Your task to perform on an android device: turn on priority inbox in the gmail app Image 0: 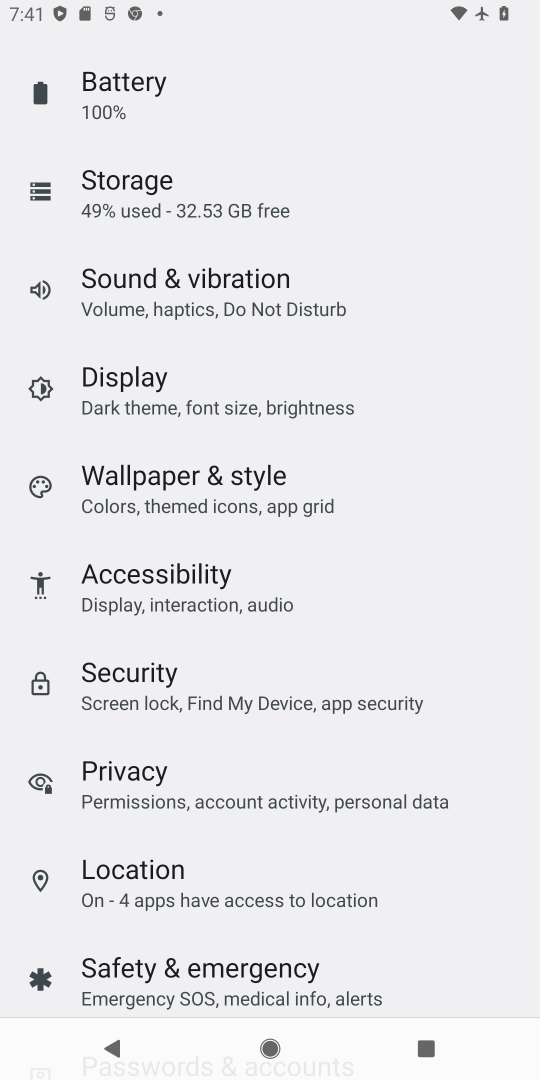
Step 0: press home button
Your task to perform on an android device: turn on priority inbox in the gmail app Image 1: 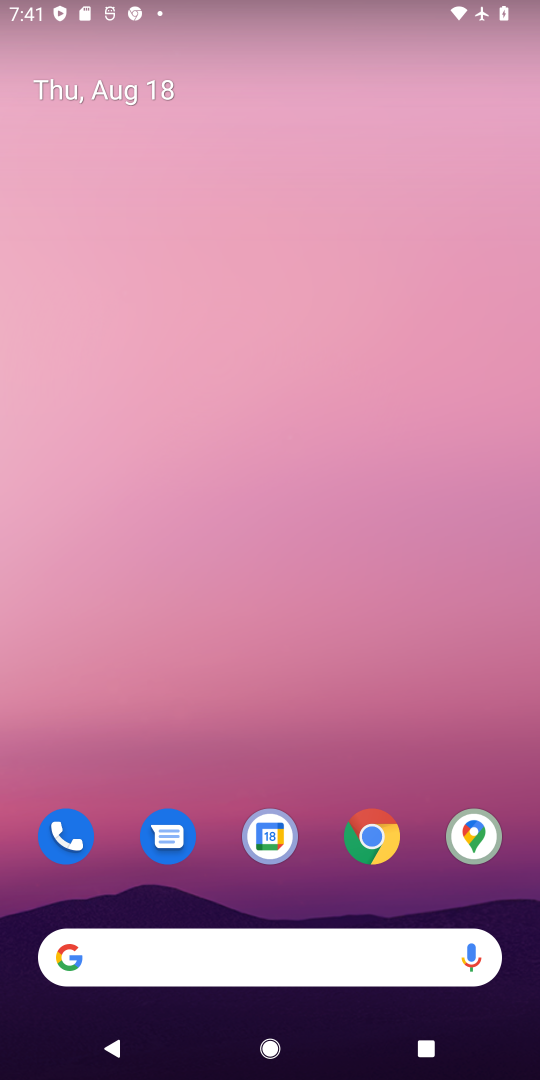
Step 1: drag from (259, 762) to (212, 166)
Your task to perform on an android device: turn on priority inbox in the gmail app Image 2: 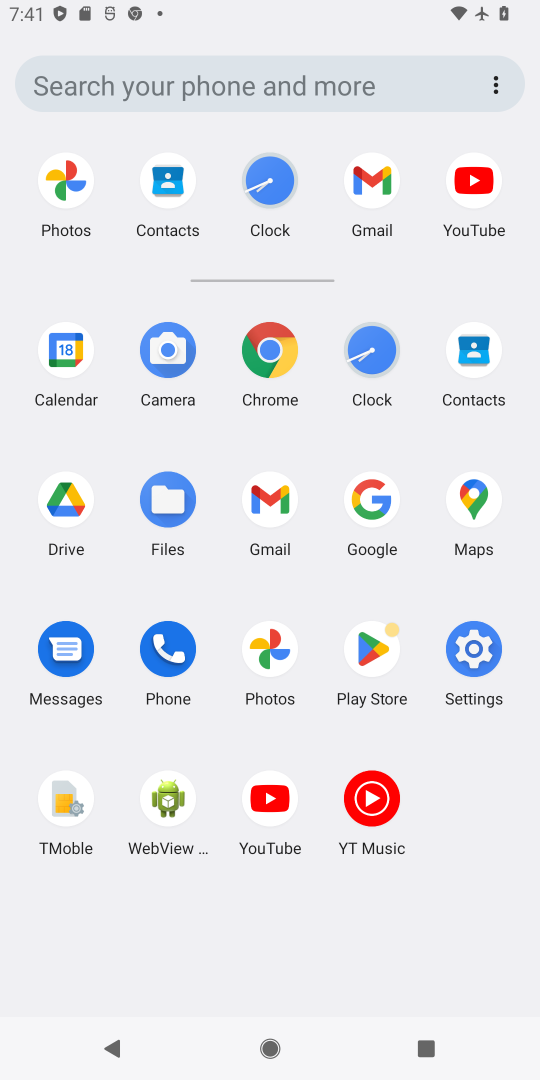
Step 2: click (278, 498)
Your task to perform on an android device: turn on priority inbox in the gmail app Image 3: 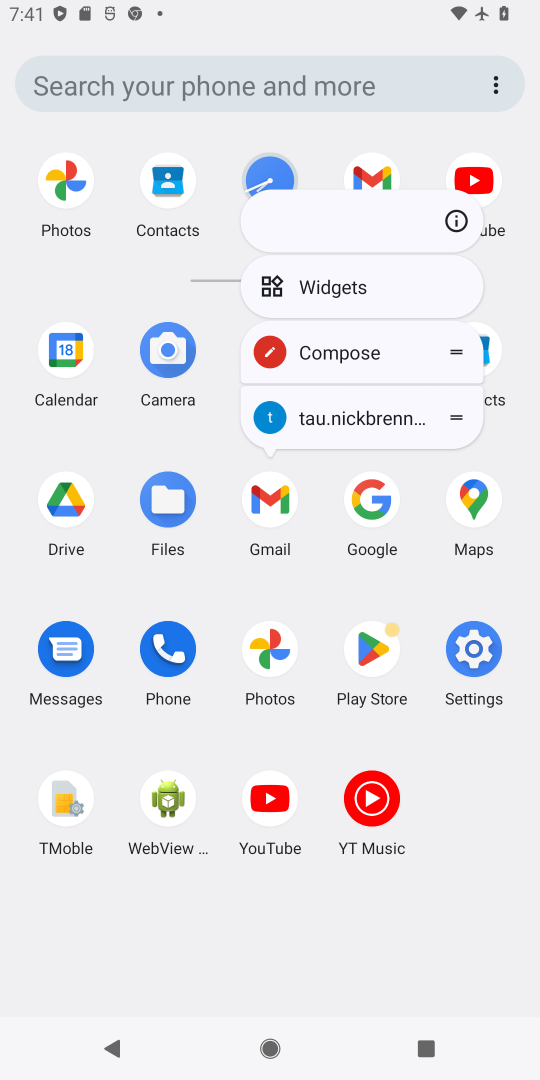
Step 3: click (292, 499)
Your task to perform on an android device: turn on priority inbox in the gmail app Image 4: 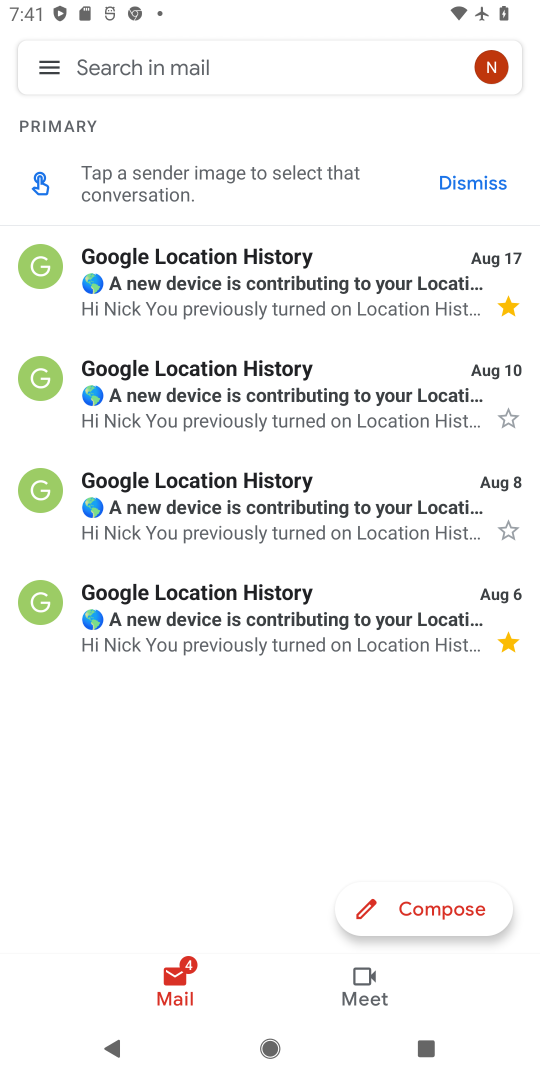
Step 4: click (59, 58)
Your task to perform on an android device: turn on priority inbox in the gmail app Image 5: 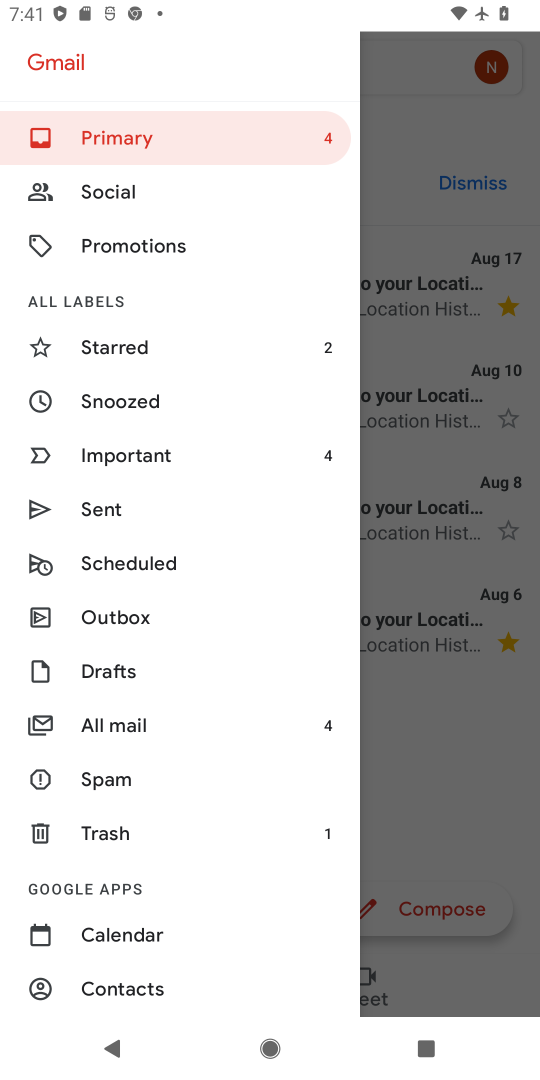
Step 5: drag from (123, 896) to (134, 295)
Your task to perform on an android device: turn on priority inbox in the gmail app Image 6: 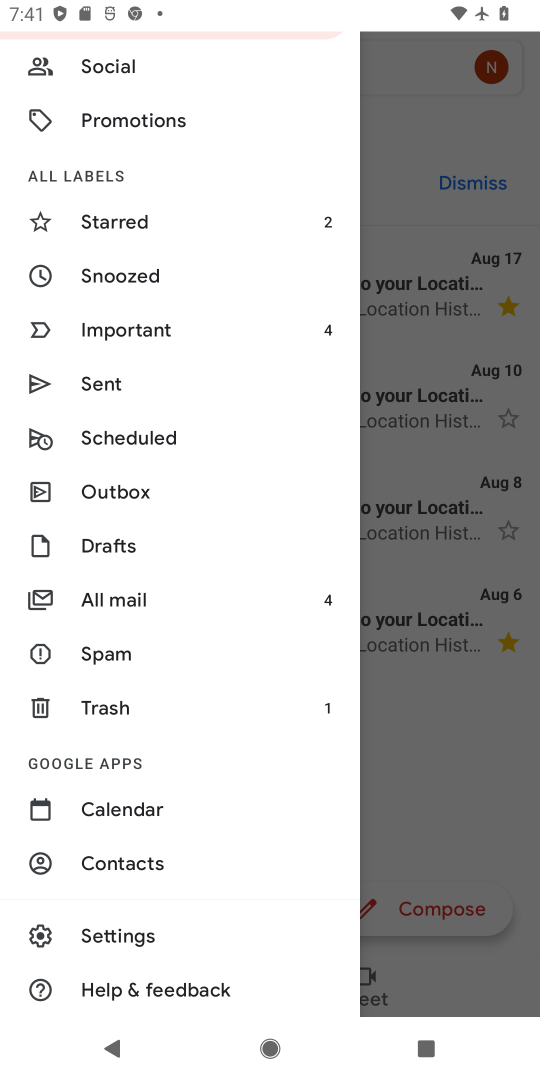
Step 6: click (117, 927)
Your task to perform on an android device: turn on priority inbox in the gmail app Image 7: 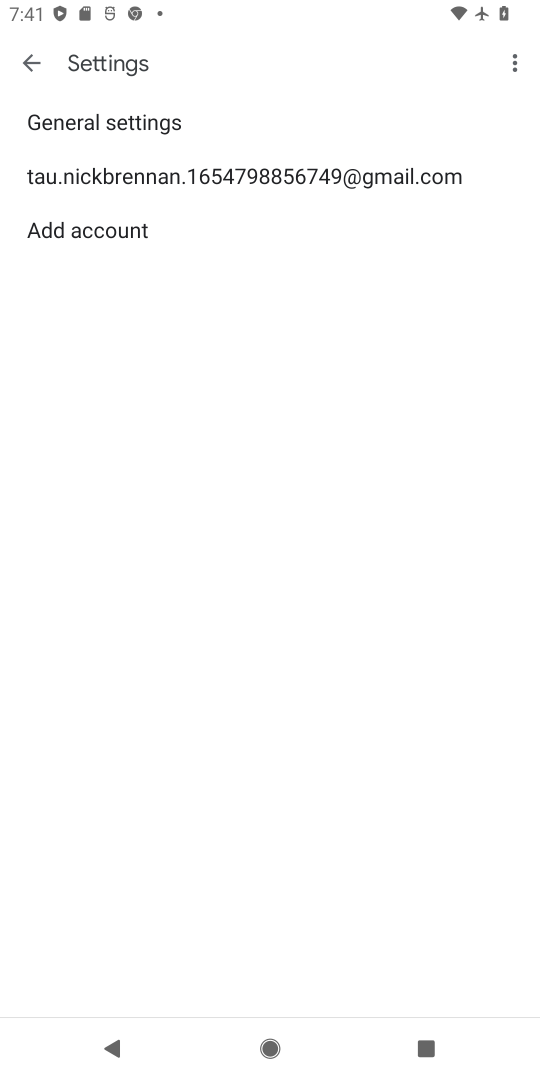
Step 7: click (267, 184)
Your task to perform on an android device: turn on priority inbox in the gmail app Image 8: 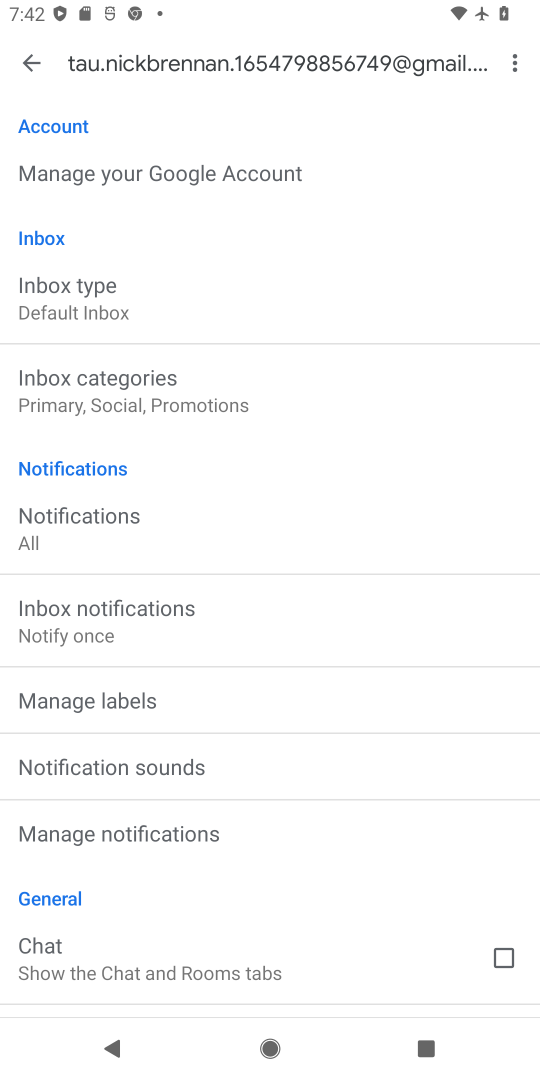
Step 8: click (124, 301)
Your task to perform on an android device: turn on priority inbox in the gmail app Image 9: 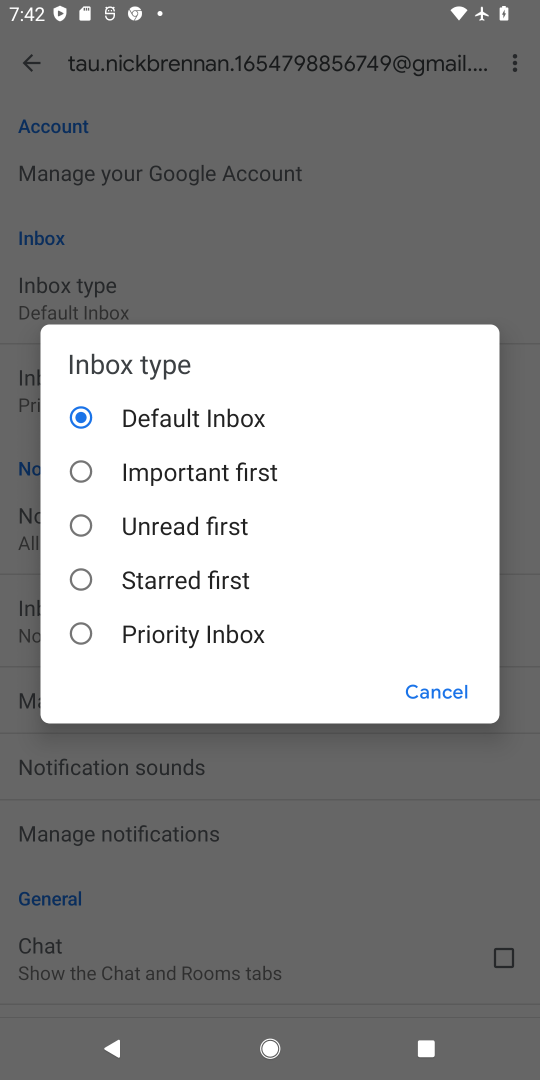
Step 9: task complete